Your task to perform on an android device: Is it going to rain this weekend? Image 0: 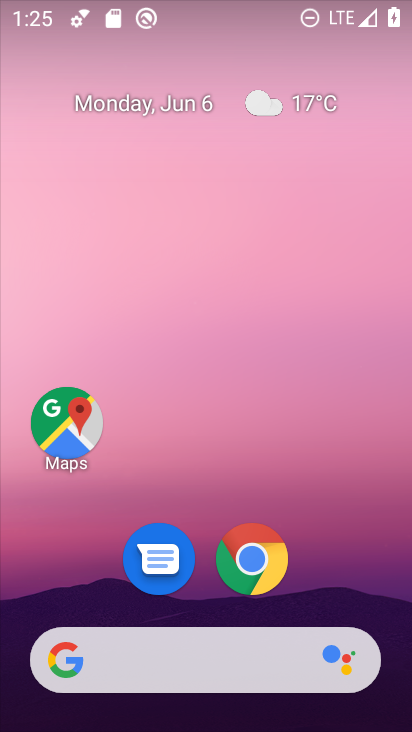
Step 0: drag from (207, 677) to (266, 148)
Your task to perform on an android device: Is it going to rain this weekend? Image 1: 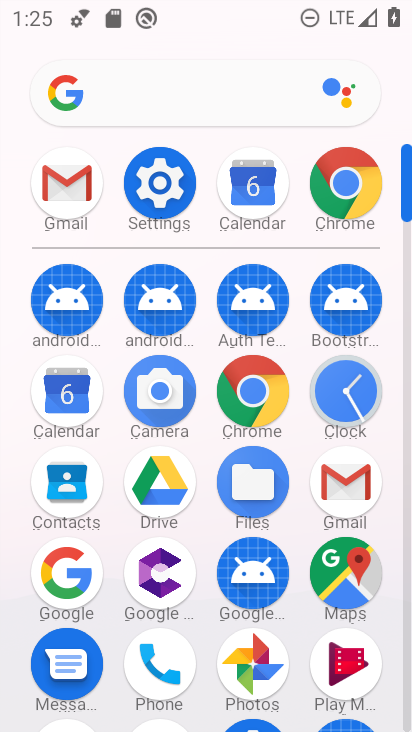
Step 1: drag from (90, 505) to (83, 395)
Your task to perform on an android device: Is it going to rain this weekend? Image 2: 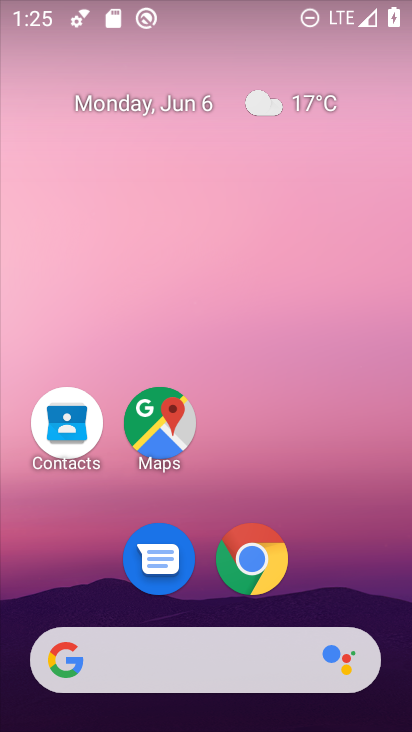
Step 2: drag from (202, 680) to (221, 63)
Your task to perform on an android device: Is it going to rain this weekend? Image 3: 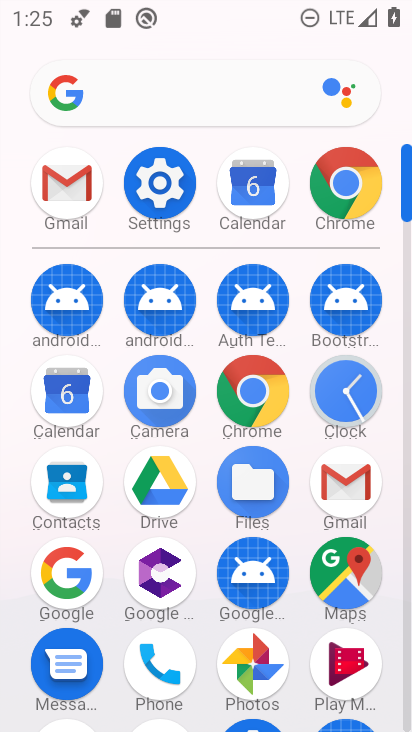
Step 3: click (81, 573)
Your task to perform on an android device: Is it going to rain this weekend? Image 4: 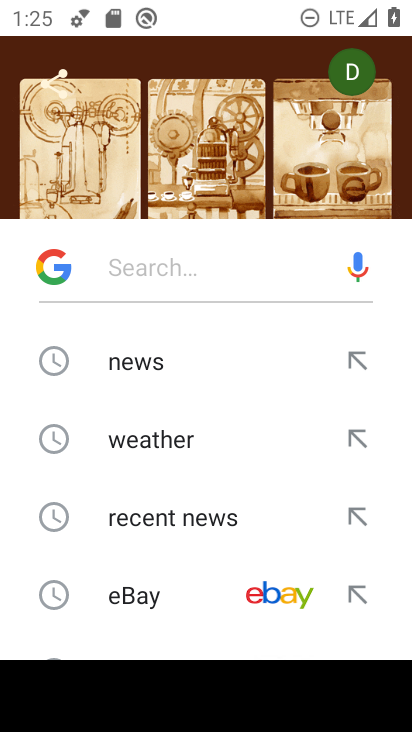
Step 4: click (196, 447)
Your task to perform on an android device: Is it going to rain this weekend? Image 5: 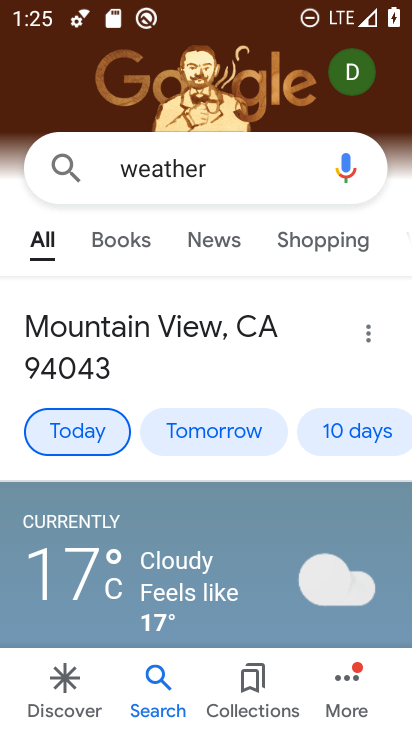
Step 5: click (340, 434)
Your task to perform on an android device: Is it going to rain this weekend? Image 6: 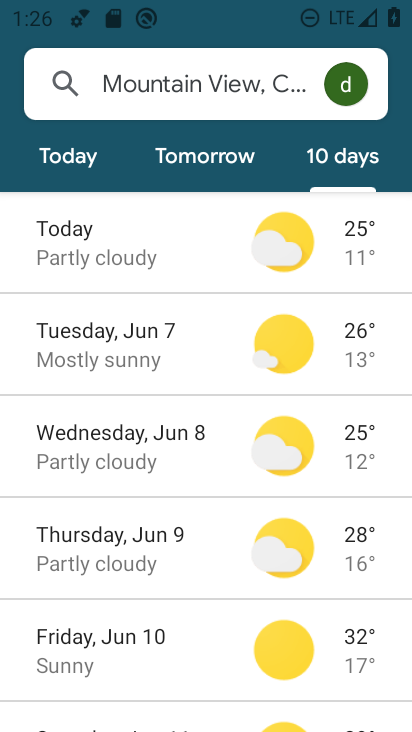
Step 6: task complete